Your task to perform on an android device: Search for seafood restaurants on Google Maps Image 0: 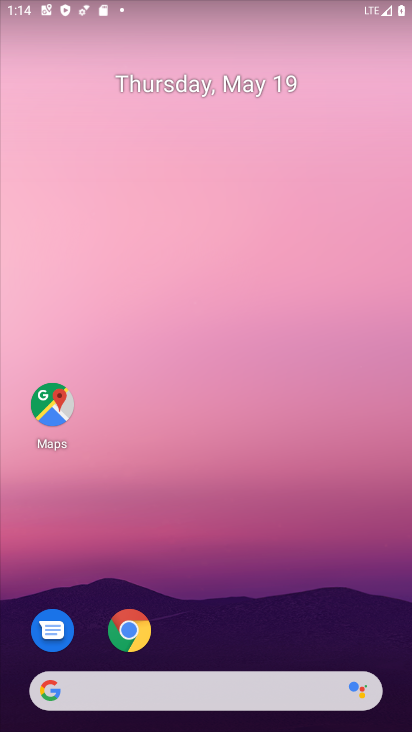
Step 0: drag from (226, 650) to (192, 80)
Your task to perform on an android device: Search for seafood restaurants on Google Maps Image 1: 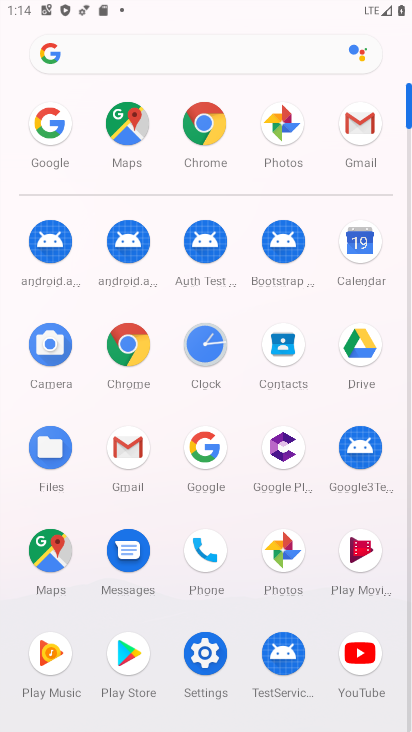
Step 1: click (47, 548)
Your task to perform on an android device: Search for seafood restaurants on Google Maps Image 2: 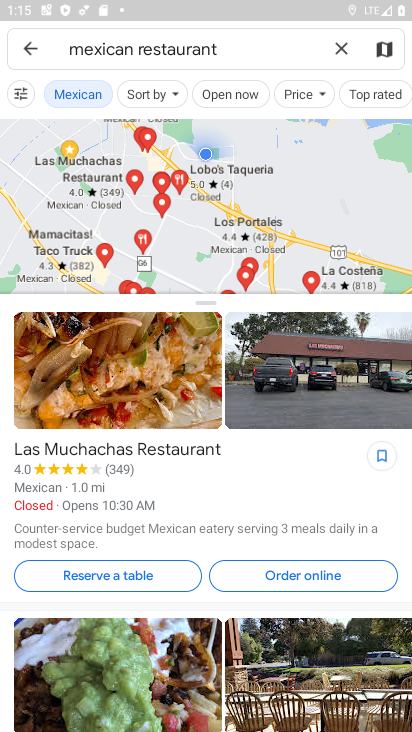
Step 2: click (340, 49)
Your task to perform on an android device: Search for seafood restaurants on Google Maps Image 3: 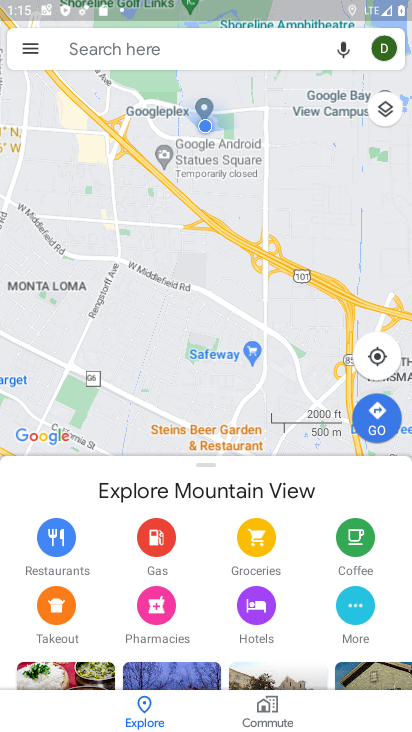
Step 3: click (151, 75)
Your task to perform on an android device: Search for seafood restaurants on Google Maps Image 4: 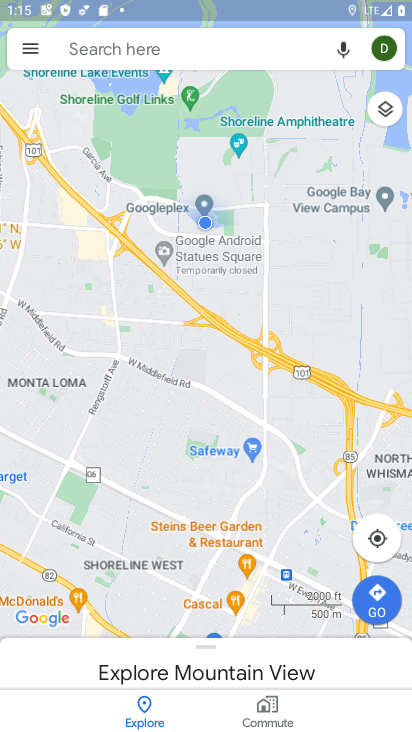
Step 4: click (150, 40)
Your task to perform on an android device: Search for seafood restaurants on Google Maps Image 5: 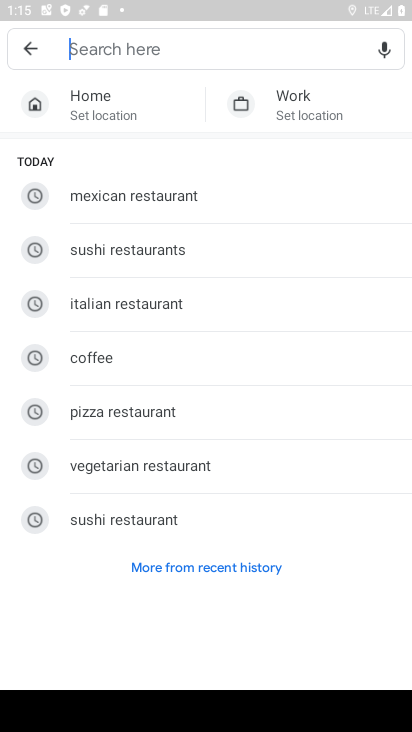
Step 5: type "seafood"
Your task to perform on an android device: Search for seafood restaurants on Google Maps Image 6: 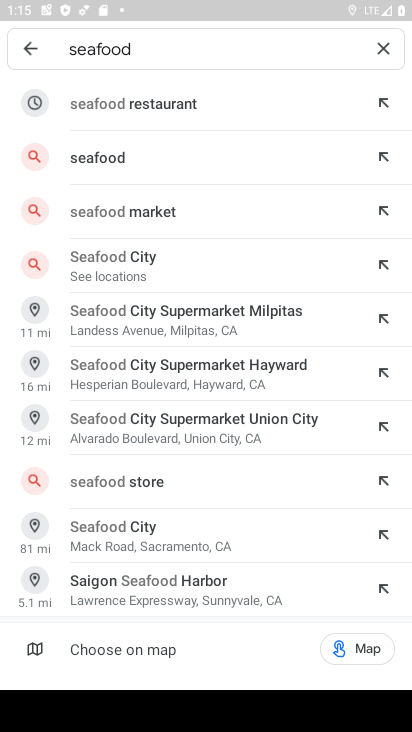
Step 6: click (187, 104)
Your task to perform on an android device: Search for seafood restaurants on Google Maps Image 7: 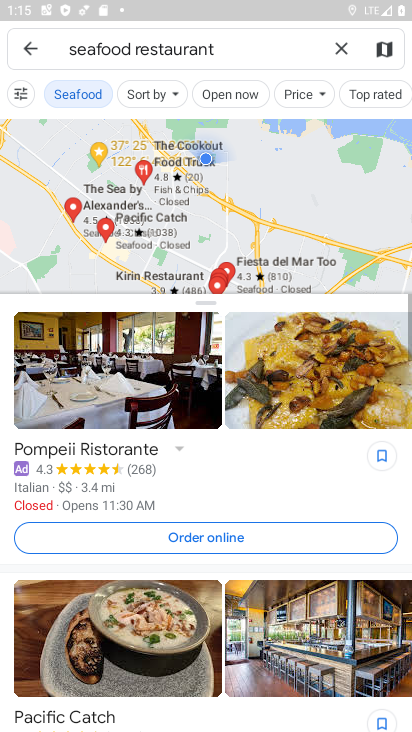
Step 7: task complete